Your task to perform on an android device: Check the news Image 0: 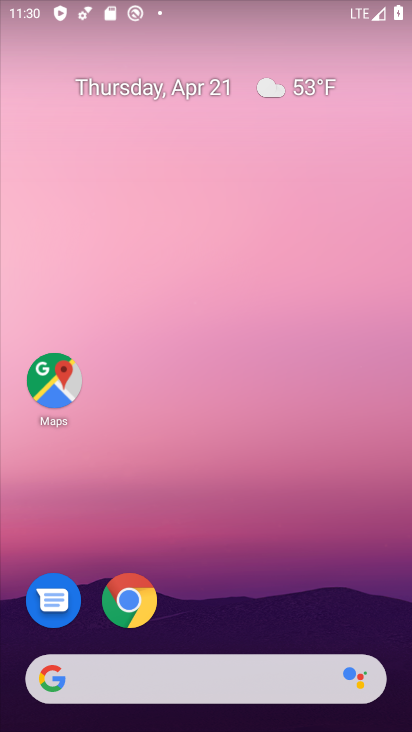
Step 0: drag from (0, 293) to (360, 269)
Your task to perform on an android device: Check the news Image 1: 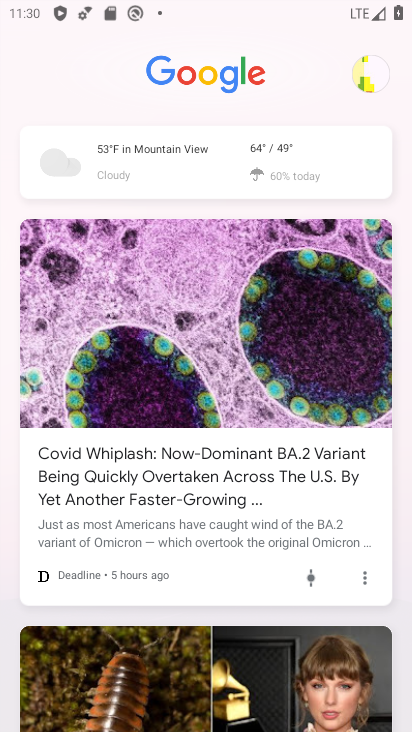
Step 1: task complete